Your task to perform on an android device: What's the weather today? Image 0: 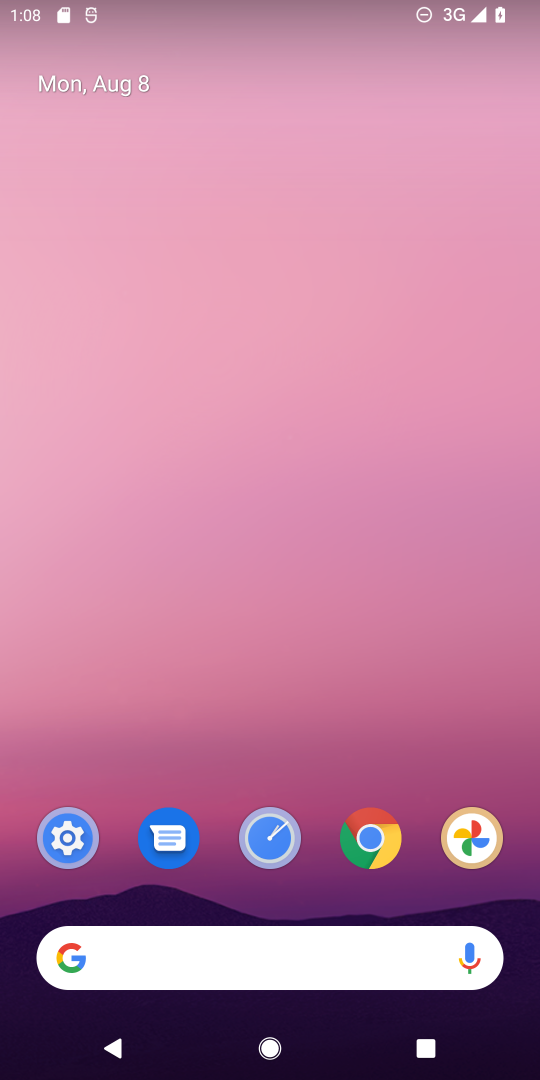
Step 0: press home button
Your task to perform on an android device: What's the weather today? Image 1: 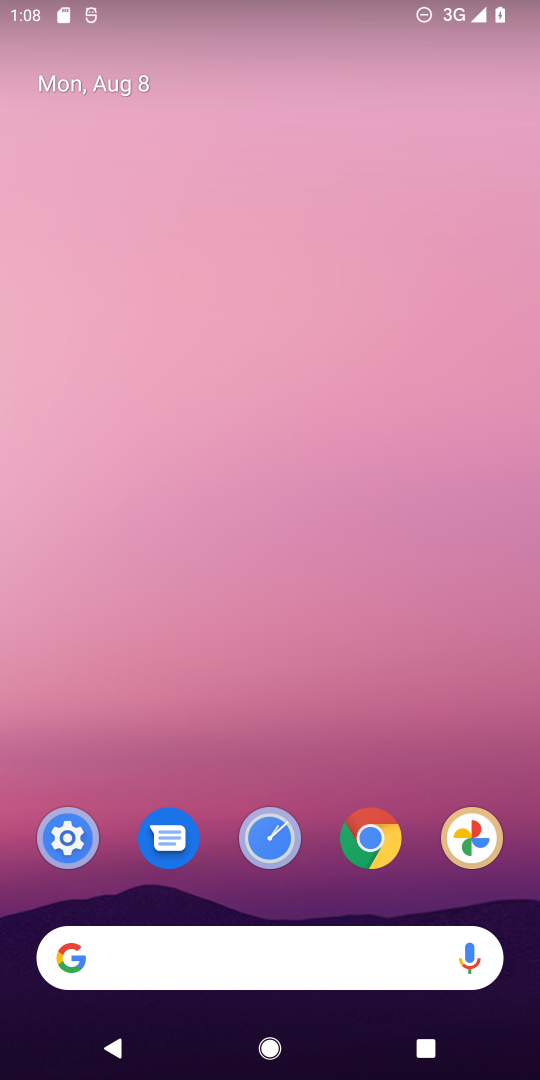
Step 1: press home button
Your task to perform on an android device: What's the weather today? Image 2: 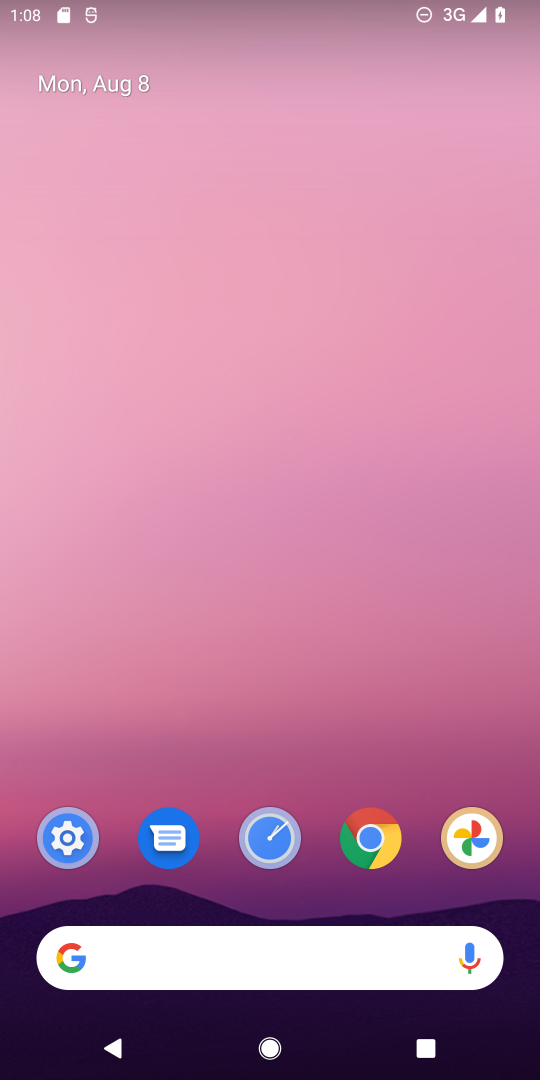
Step 2: click (64, 971)
Your task to perform on an android device: What's the weather today? Image 3: 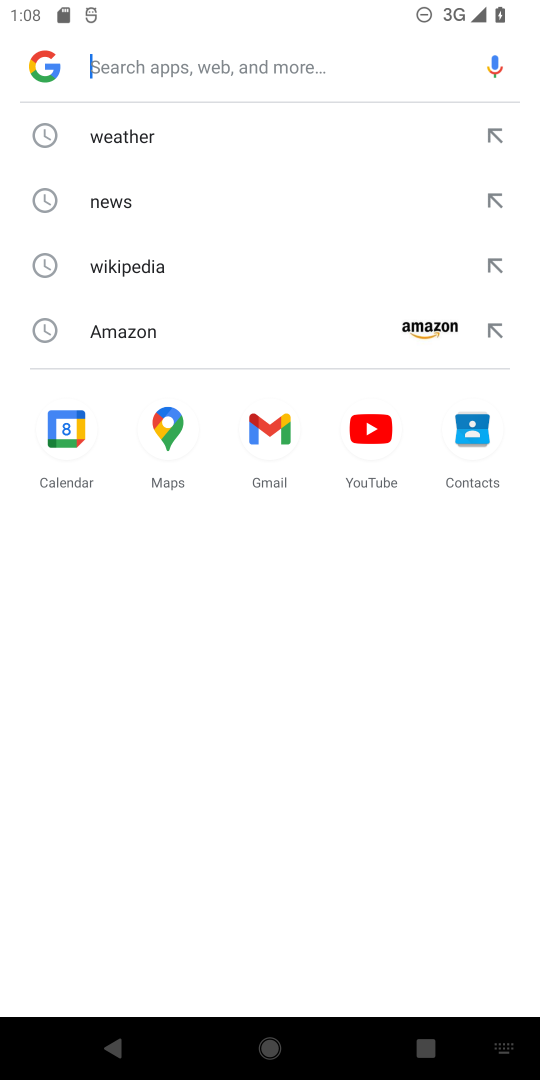
Step 3: type " weather today?"
Your task to perform on an android device: What's the weather today? Image 4: 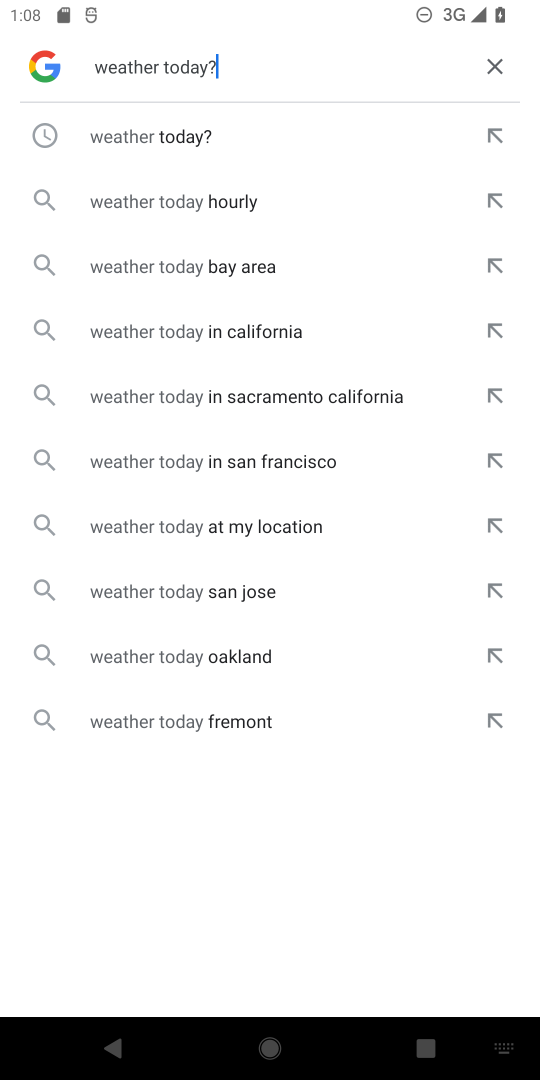
Step 4: press enter
Your task to perform on an android device: What's the weather today? Image 5: 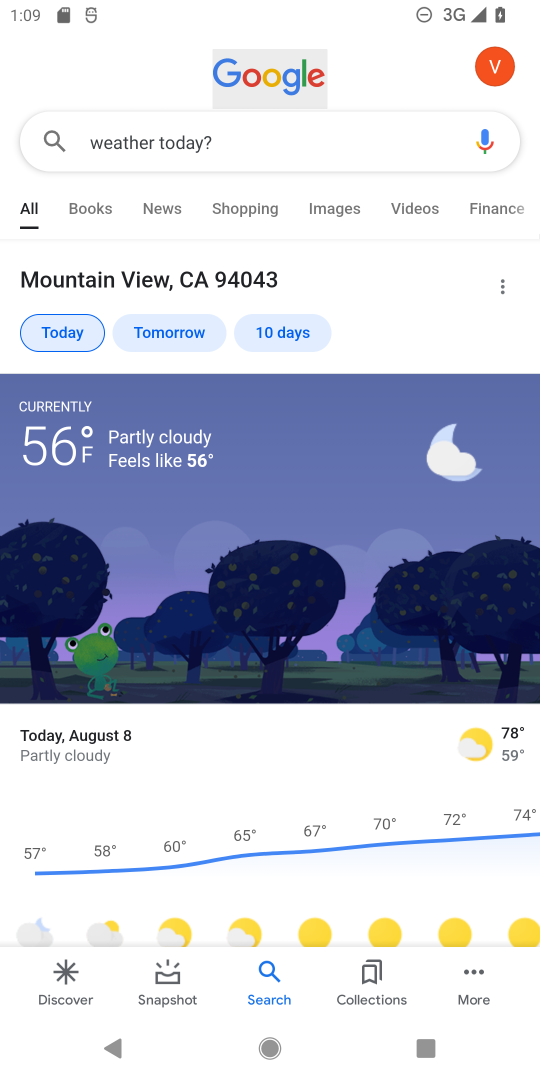
Step 5: task complete